Your task to perform on an android device: open app "Spotify: Music and Podcasts" (install if not already installed) Image 0: 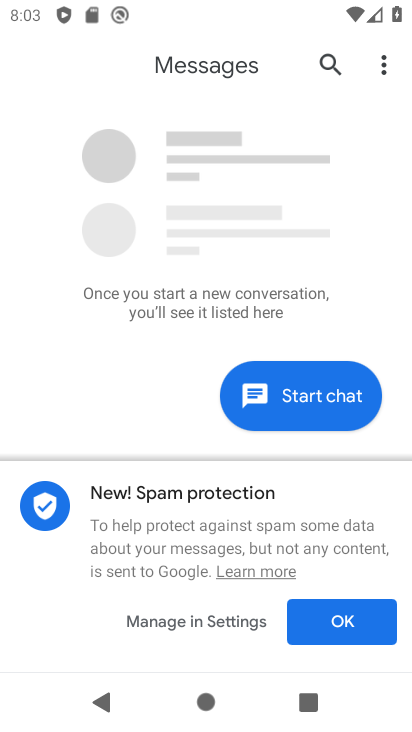
Step 0: press back button
Your task to perform on an android device: open app "Spotify: Music and Podcasts" (install if not already installed) Image 1: 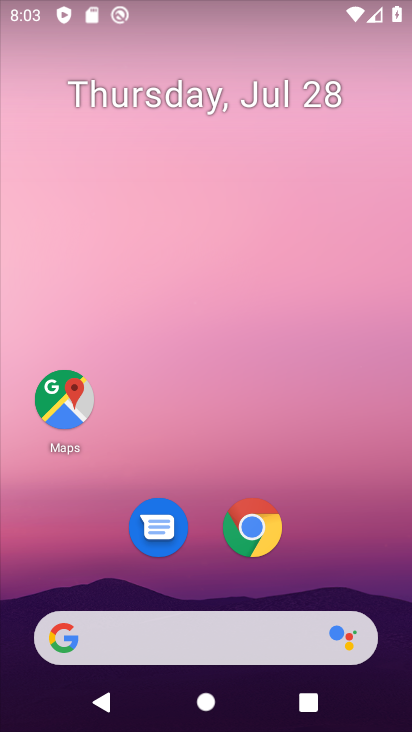
Step 1: drag from (219, 608) to (181, 9)
Your task to perform on an android device: open app "Spotify: Music and Podcasts" (install if not already installed) Image 2: 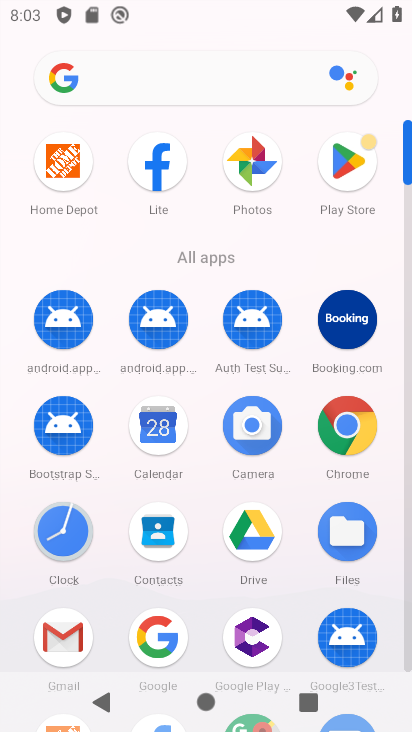
Step 2: click (355, 163)
Your task to perform on an android device: open app "Spotify: Music and Podcasts" (install if not already installed) Image 3: 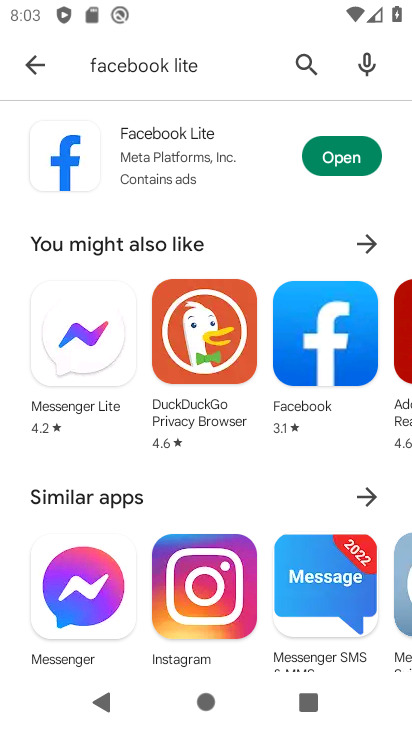
Step 3: click (303, 53)
Your task to perform on an android device: open app "Spotify: Music and Podcasts" (install if not already installed) Image 4: 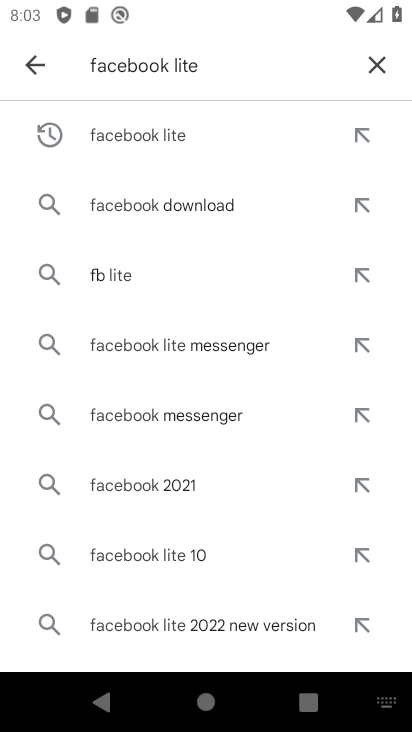
Step 4: click (369, 66)
Your task to perform on an android device: open app "Spotify: Music and Podcasts" (install if not already installed) Image 5: 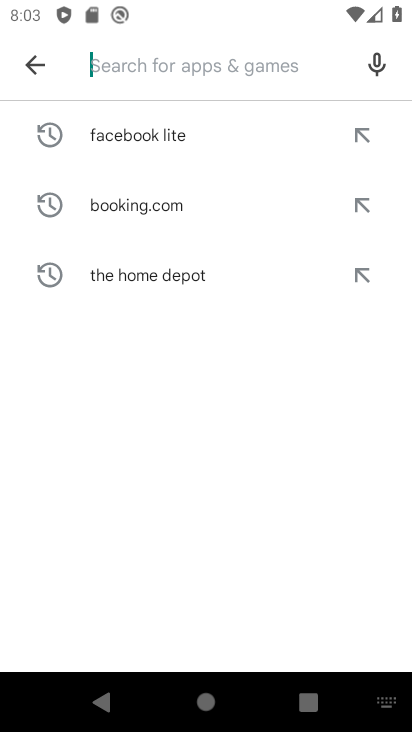
Step 5: click (202, 65)
Your task to perform on an android device: open app "Spotify: Music and Podcasts" (install if not already installed) Image 6: 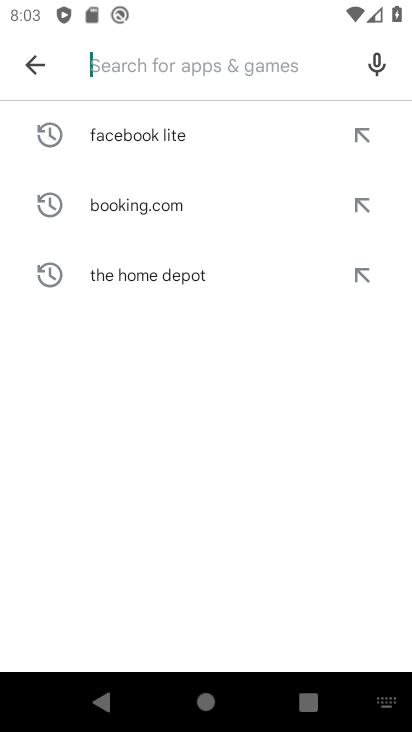
Step 6: type "spotify"
Your task to perform on an android device: open app "Spotify: Music and Podcasts" (install if not already installed) Image 7: 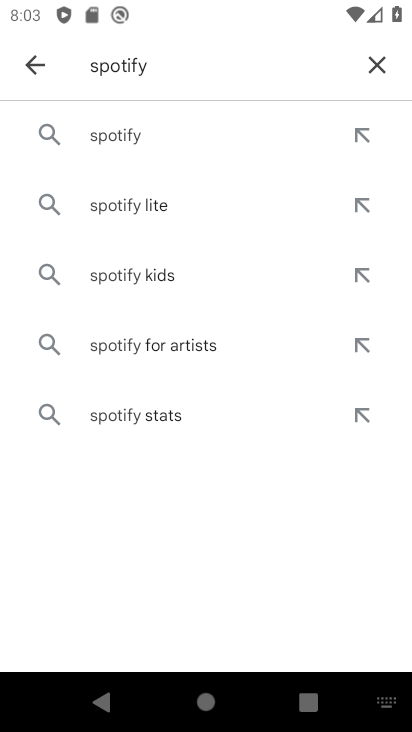
Step 7: click (131, 136)
Your task to perform on an android device: open app "Spotify: Music and Podcasts" (install if not already installed) Image 8: 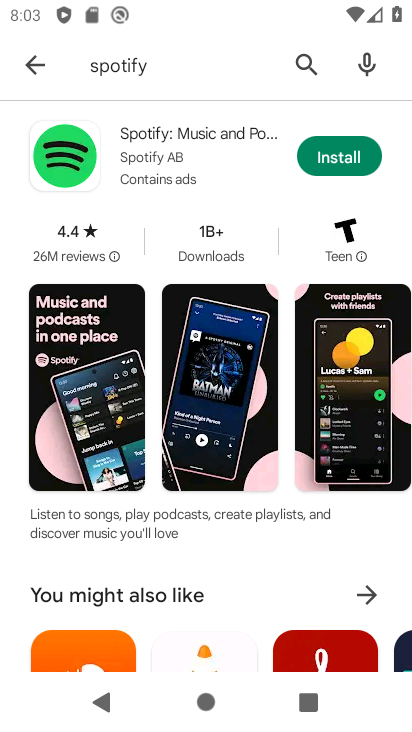
Step 8: click (325, 156)
Your task to perform on an android device: open app "Spotify: Music and Podcasts" (install if not already installed) Image 9: 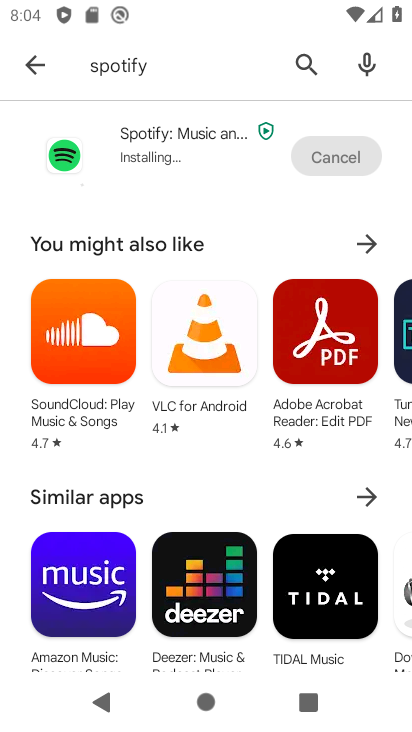
Step 9: click (33, 66)
Your task to perform on an android device: open app "Spotify: Music and Podcasts" (install if not already installed) Image 10: 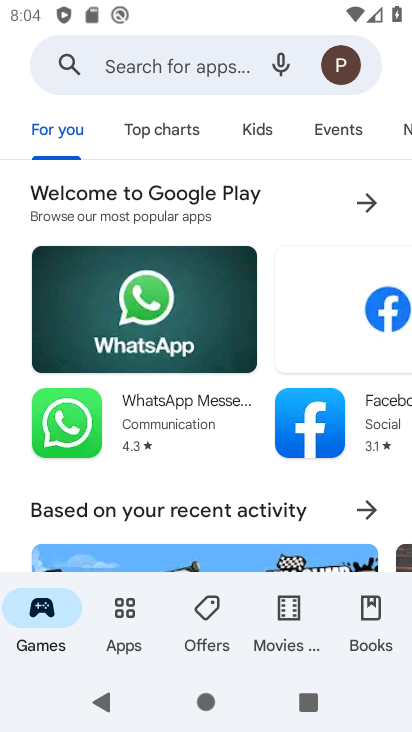
Step 10: click (133, 70)
Your task to perform on an android device: open app "Spotify: Music and Podcasts" (install if not already installed) Image 11: 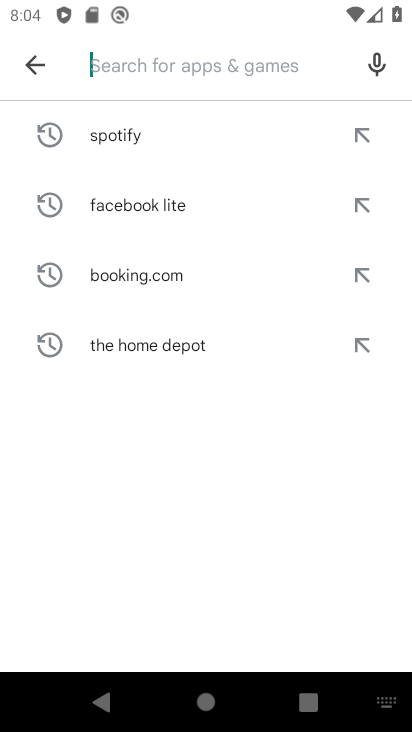
Step 11: click (129, 121)
Your task to perform on an android device: open app "Spotify: Music and Podcasts" (install if not already installed) Image 12: 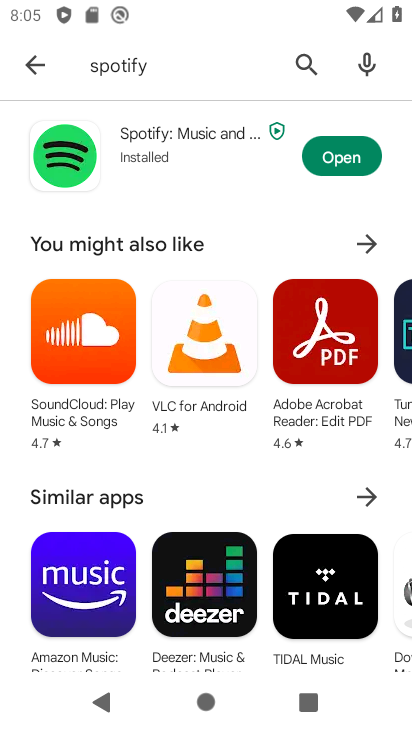
Step 12: click (337, 162)
Your task to perform on an android device: open app "Spotify: Music and Podcasts" (install if not already installed) Image 13: 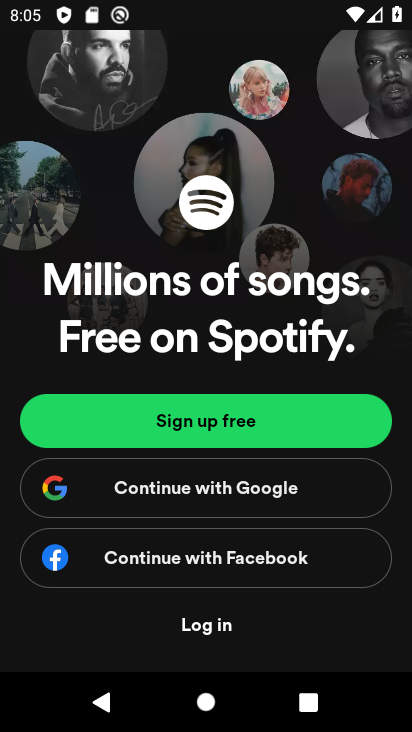
Step 13: task complete